Your task to perform on an android device: turn off airplane mode Image 0: 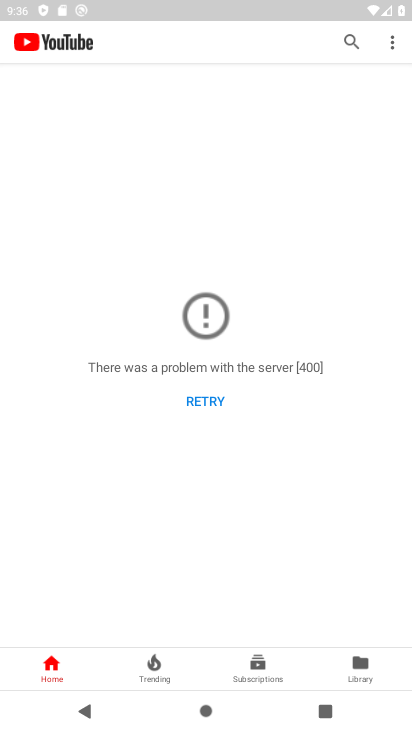
Step 0: press back button
Your task to perform on an android device: turn off airplane mode Image 1: 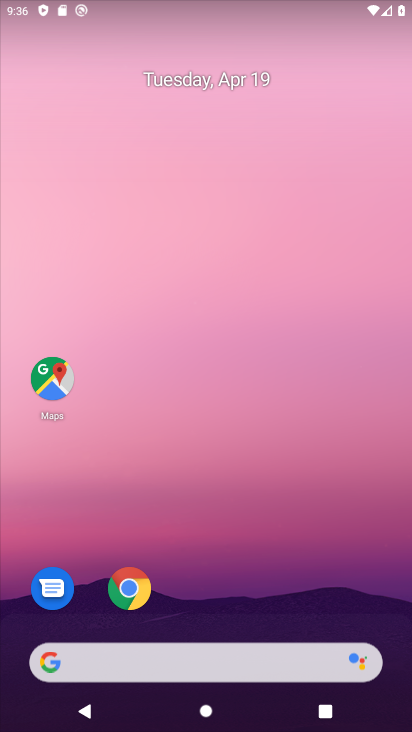
Step 1: drag from (227, 618) to (322, 76)
Your task to perform on an android device: turn off airplane mode Image 2: 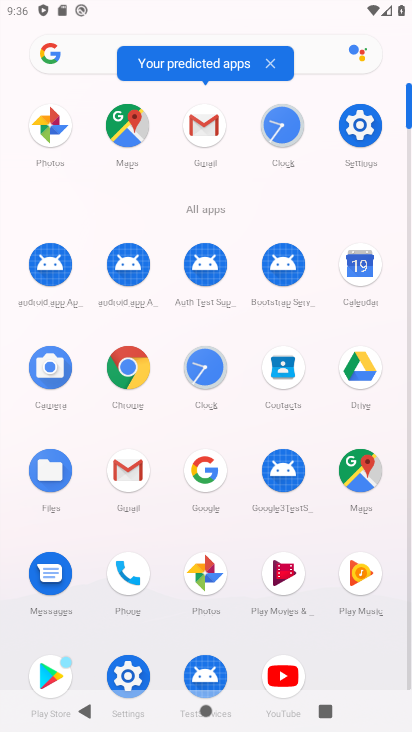
Step 2: click (357, 121)
Your task to perform on an android device: turn off airplane mode Image 3: 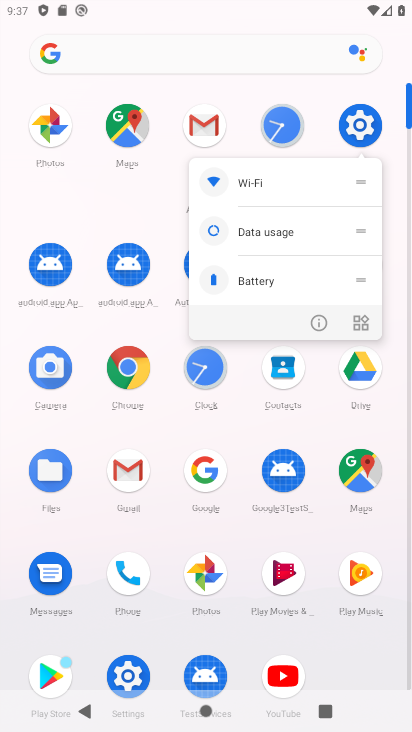
Step 3: click (362, 129)
Your task to perform on an android device: turn off airplane mode Image 4: 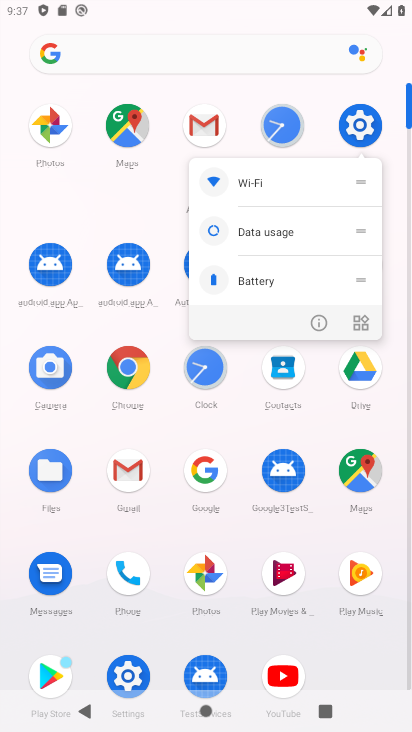
Step 4: click (375, 106)
Your task to perform on an android device: turn off airplane mode Image 5: 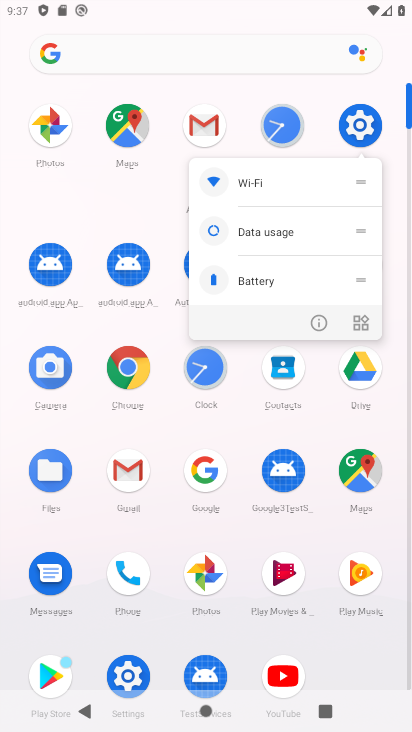
Step 5: click (356, 124)
Your task to perform on an android device: turn off airplane mode Image 6: 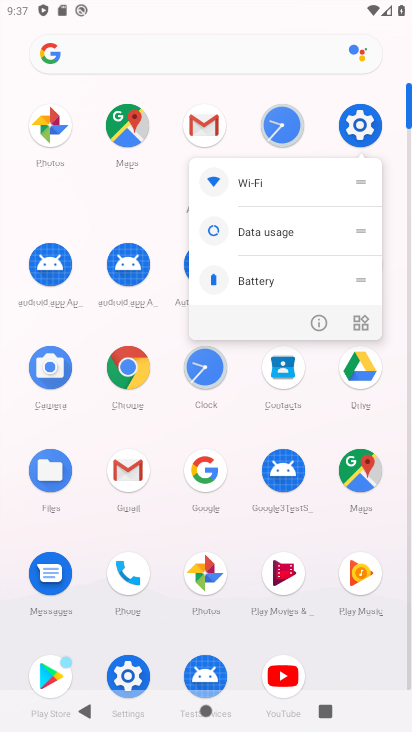
Step 6: click (377, 134)
Your task to perform on an android device: turn off airplane mode Image 7: 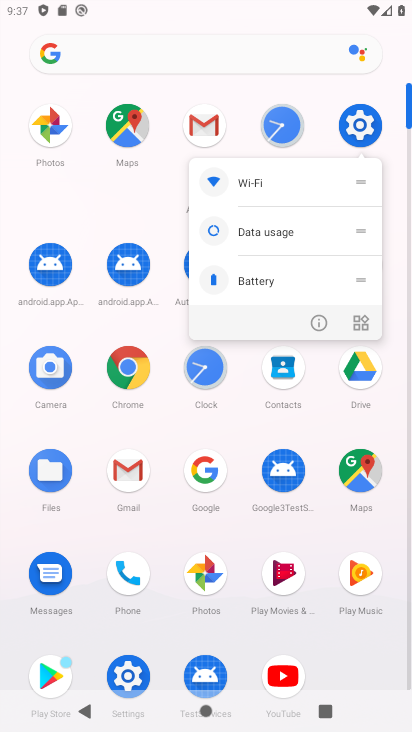
Step 7: click (363, 119)
Your task to perform on an android device: turn off airplane mode Image 8: 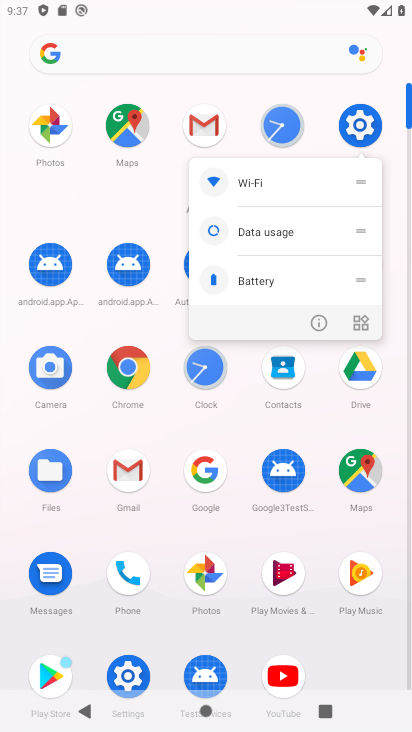
Step 8: click (357, 127)
Your task to perform on an android device: turn off airplane mode Image 9: 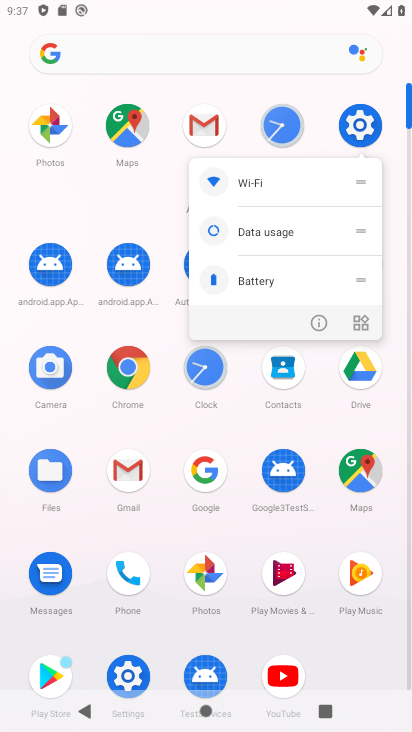
Step 9: click (374, 119)
Your task to perform on an android device: turn off airplane mode Image 10: 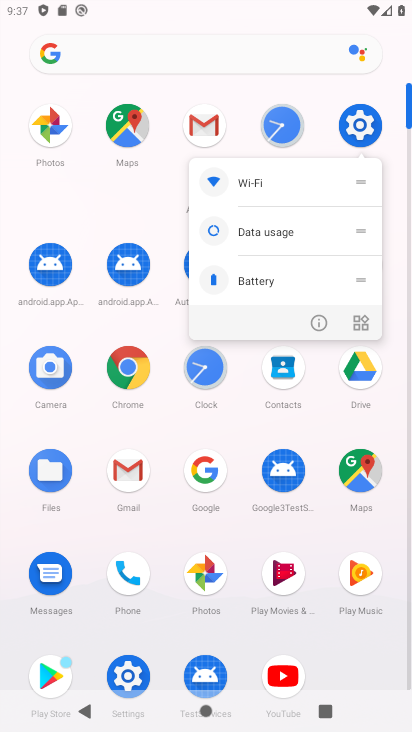
Step 10: click (368, 124)
Your task to perform on an android device: turn off airplane mode Image 11: 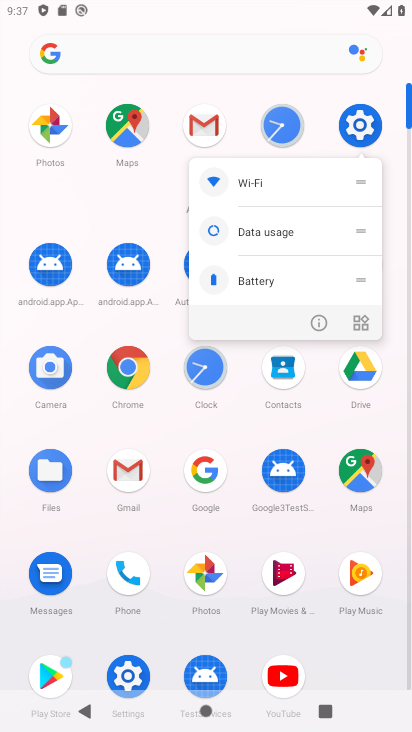
Step 11: click (352, 130)
Your task to perform on an android device: turn off airplane mode Image 12: 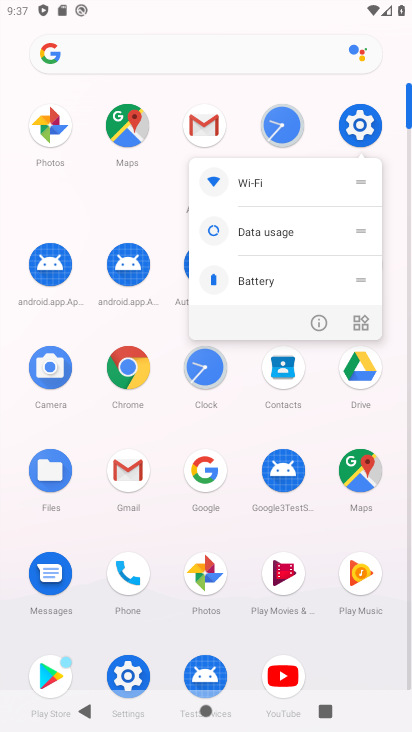
Step 12: click (132, 667)
Your task to perform on an android device: turn off airplane mode Image 13: 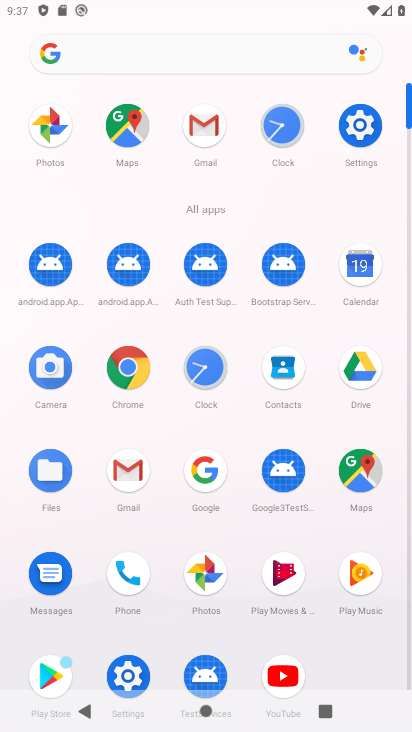
Step 13: click (124, 674)
Your task to perform on an android device: turn off airplane mode Image 14: 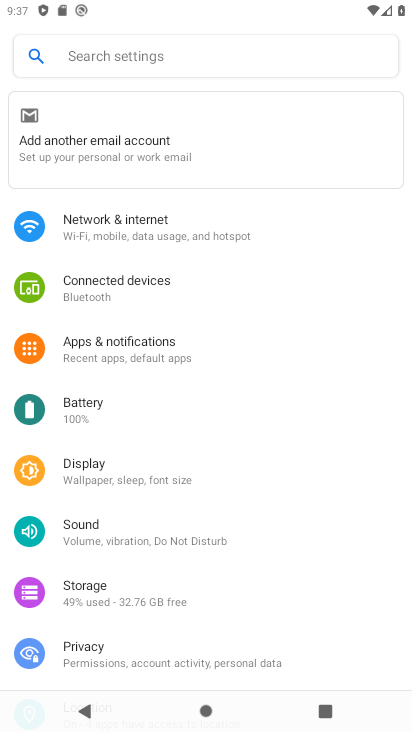
Step 14: click (191, 241)
Your task to perform on an android device: turn off airplane mode Image 15: 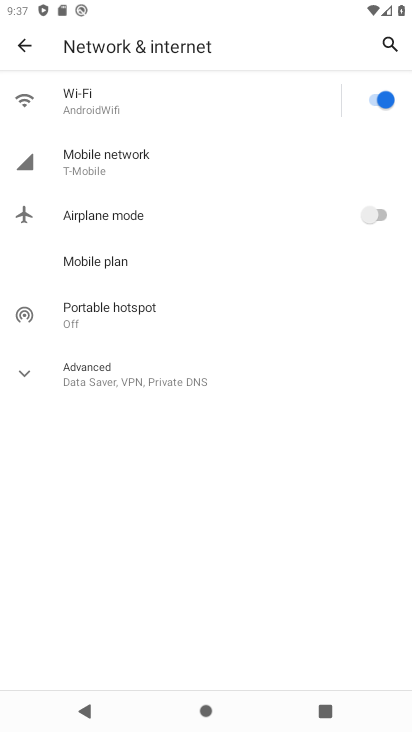
Step 15: task complete